Your task to perform on an android device: Open Google Maps Image 0: 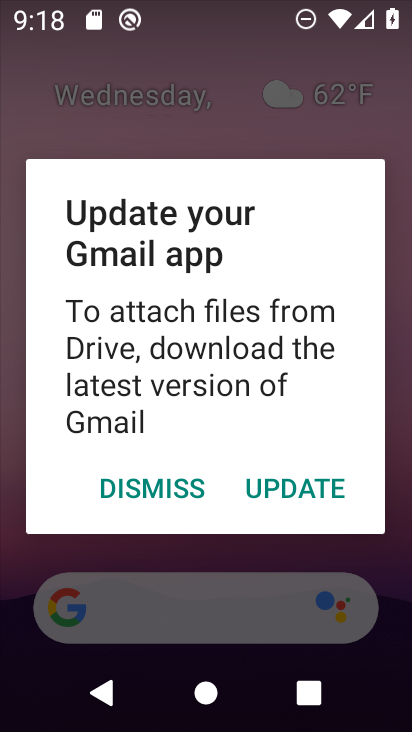
Step 0: drag from (234, 490) to (375, 121)
Your task to perform on an android device: Open Google Maps Image 1: 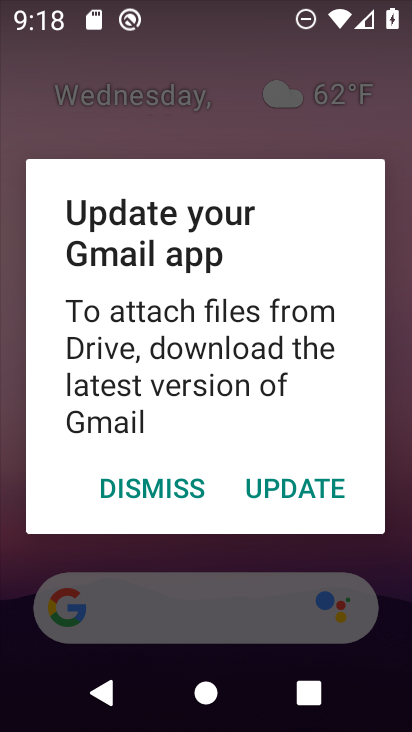
Step 1: press home button
Your task to perform on an android device: Open Google Maps Image 2: 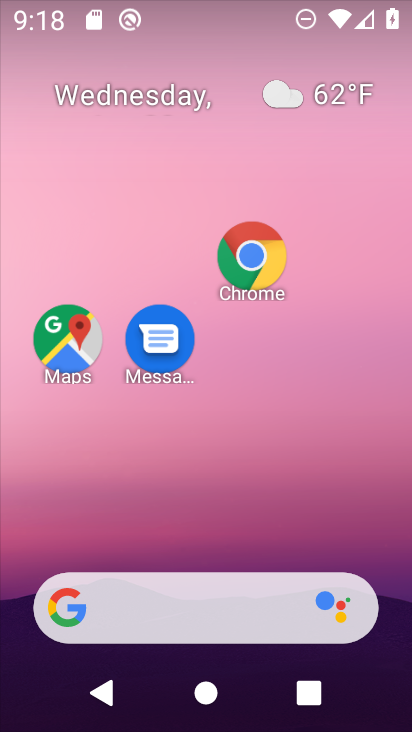
Step 2: click (70, 340)
Your task to perform on an android device: Open Google Maps Image 3: 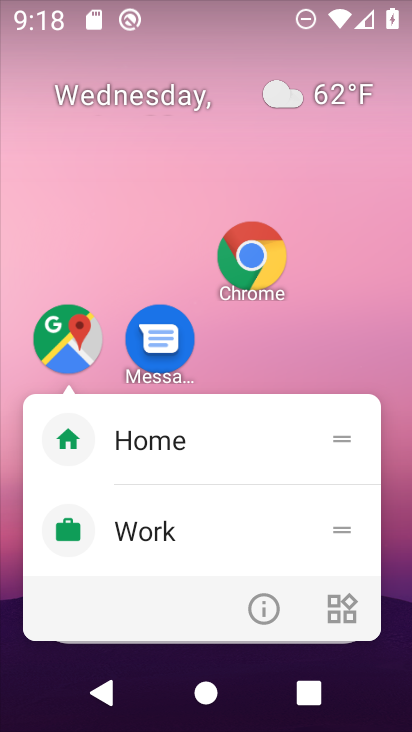
Step 3: click (70, 340)
Your task to perform on an android device: Open Google Maps Image 4: 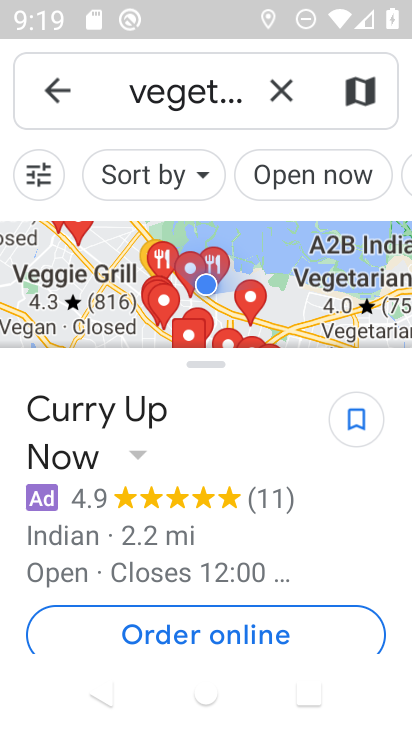
Step 4: task complete